Your task to perform on an android device: Is it going to rain this weekend? Image 0: 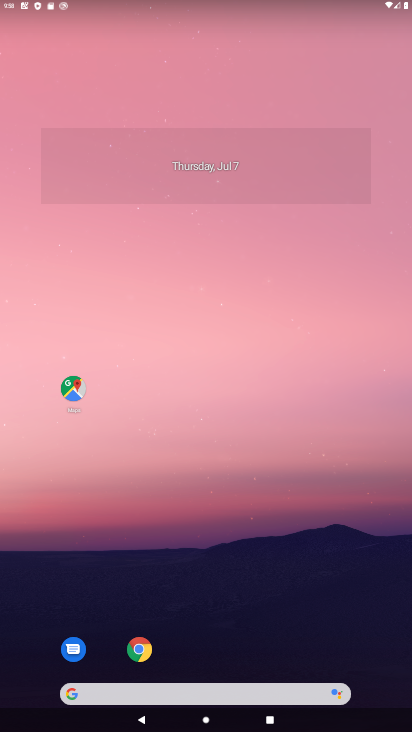
Step 0: click (235, 691)
Your task to perform on an android device: Is it going to rain this weekend? Image 1: 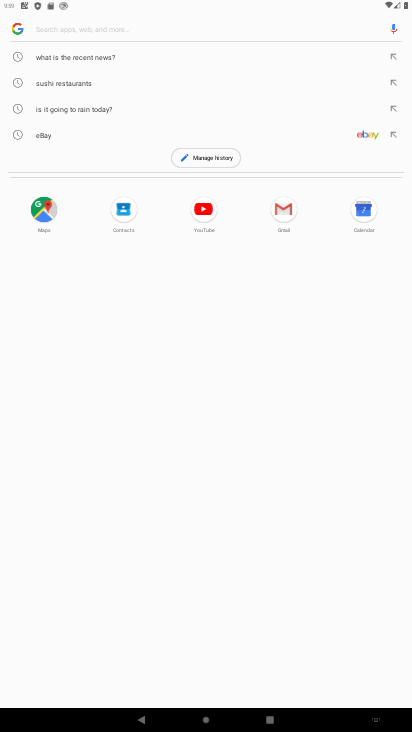
Step 1: type "Is it going to rain this weekend?"
Your task to perform on an android device: Is it going to rain this weekend? Image 2: 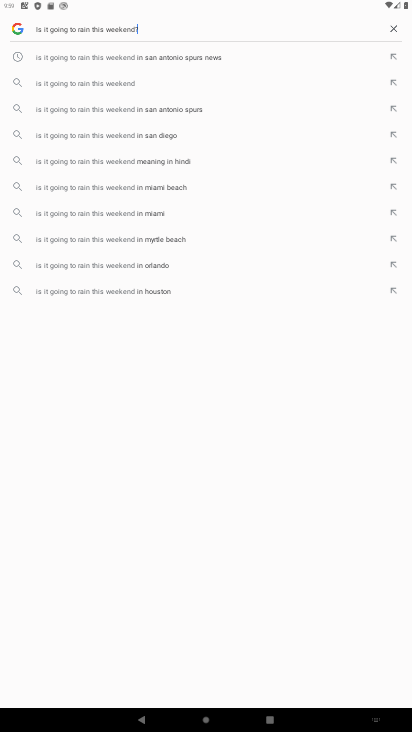
Step 2: press enter
Your task to perform on an android device: Is it going to rain this weekend? Image 3: 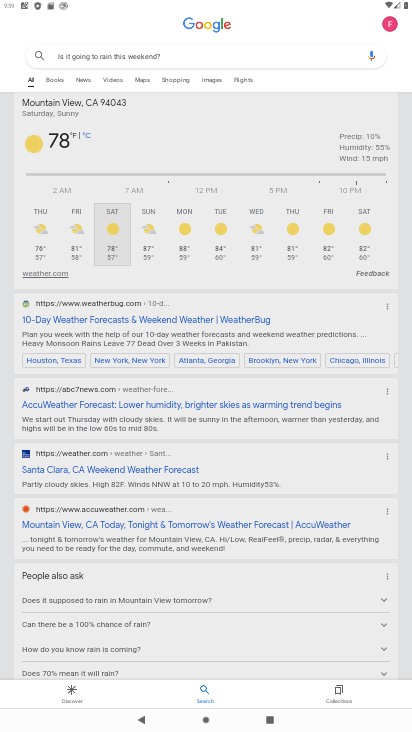
Step 3: task complete